Your task to perform on an android device: Go to privacy settings Image 0: 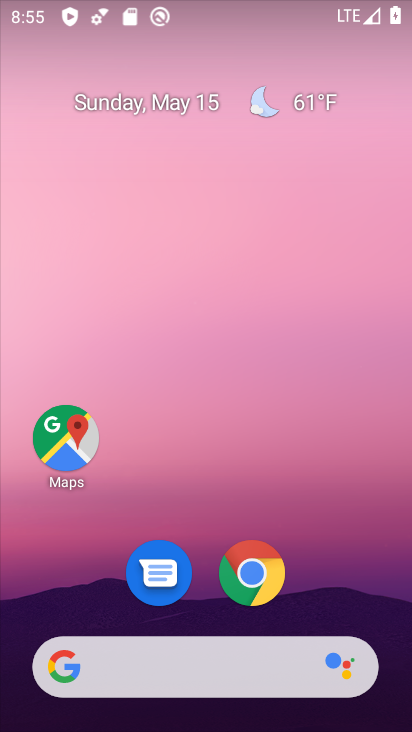
Step 0: drag from (23, 661) to (250, 133)
Your task to perform on an android device: Go to privacy settings Image 1: 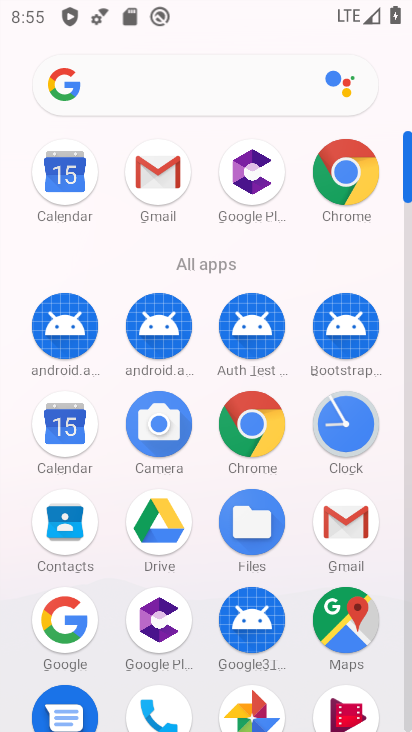
Step 1: drag from (107, 681) to (298, 168)
Your task to perform on an android device: Go to privacy settings Image 2: 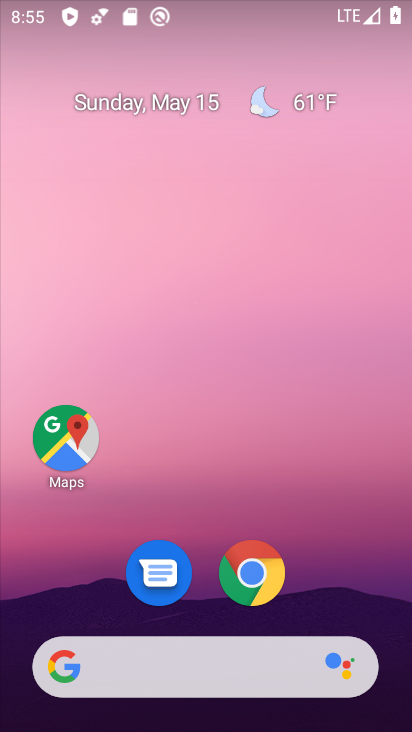
Step 2: press home button
Your task to perform on an android device: Go to privacy settings Image 3: 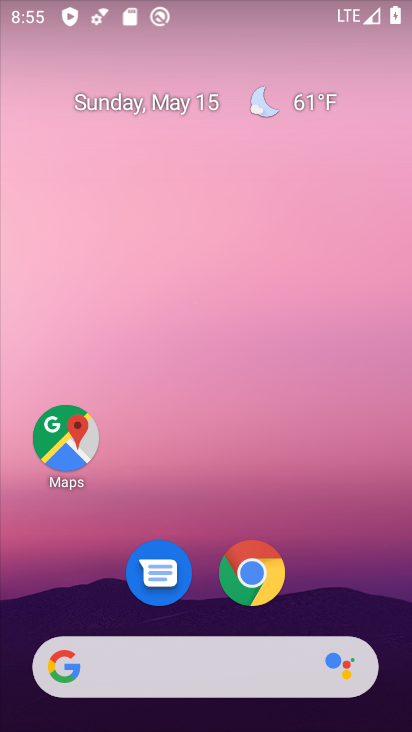
Step 3: drag from (15, 587) to (194, 142)
Your task to perform on an android device: Go to privacy settings Image 4: 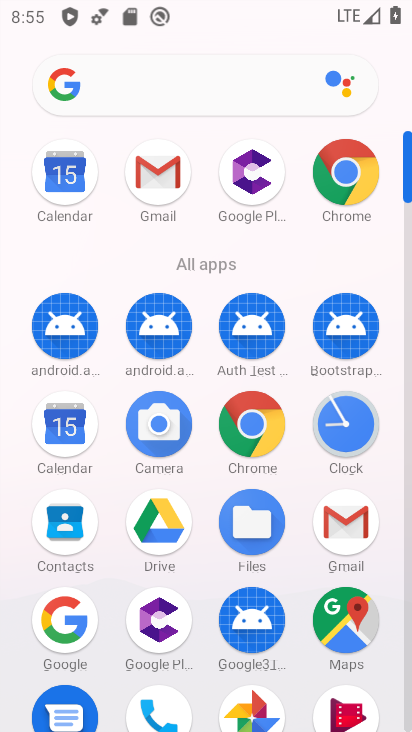
Step 4: drag from (23, 657) to (260, 231)
Your task to perform on an android device: Go to privacy settings Image 5: 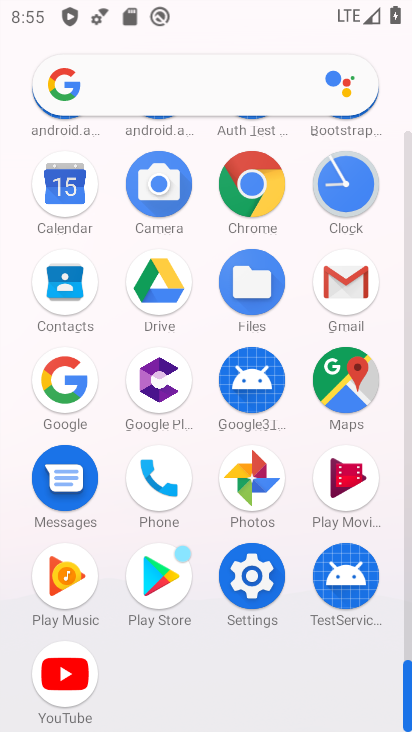
Step 5: click (262, 572)
Your task to perform on an android device: Go to privacy settings Image 6: 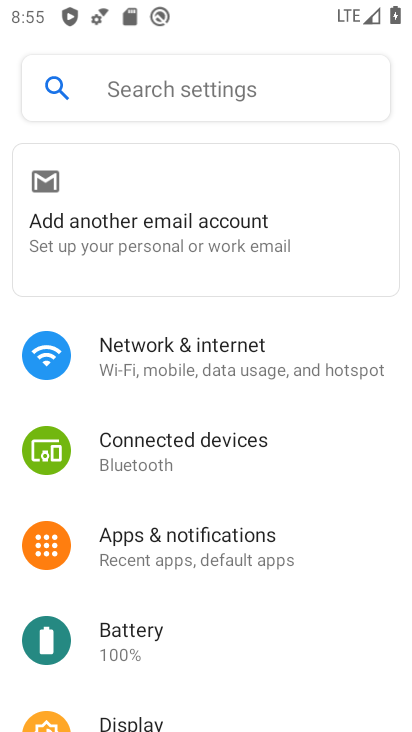
Step 6: drag from (10, 629) to (246, 198)
Your task to perform on an android device: Go to privacy settings Image 7: 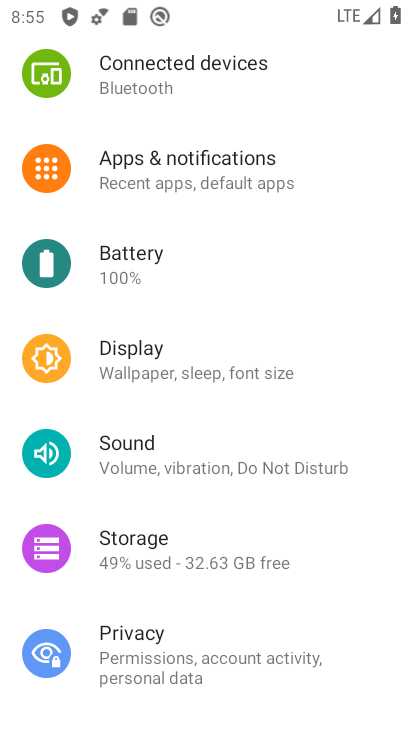
Step 7: drag from (50, 340) to (78, 239)
Your task to perform on an android device: Go to privacy settings Image 8: 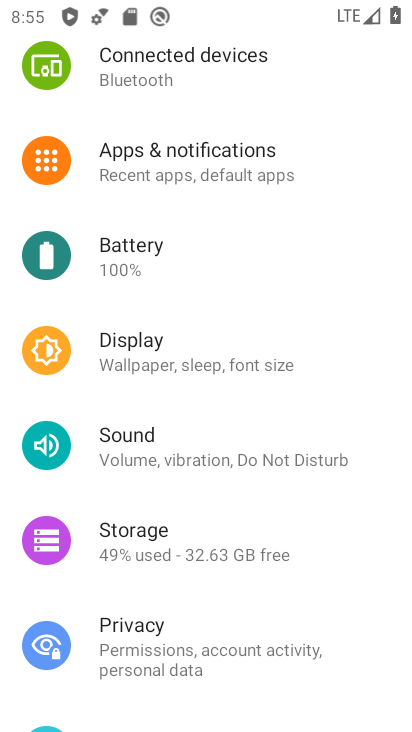
Step 8: click (110, 639)
Your task to perform on an android device: Go to privacy settings Image 9: 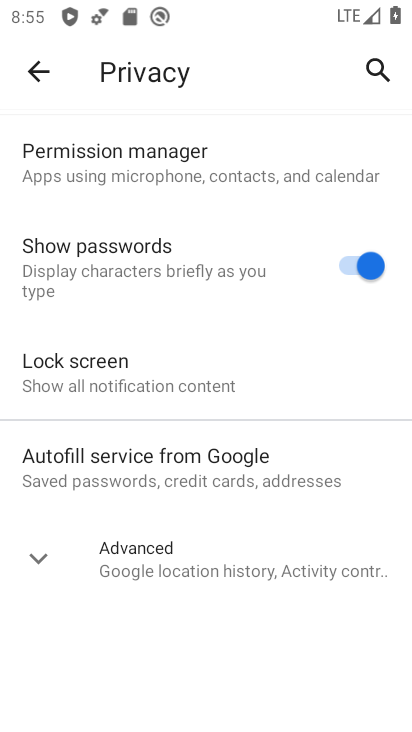
Step 9: task complete